Your task to perform on an android device: toggle notification dots Image 0: 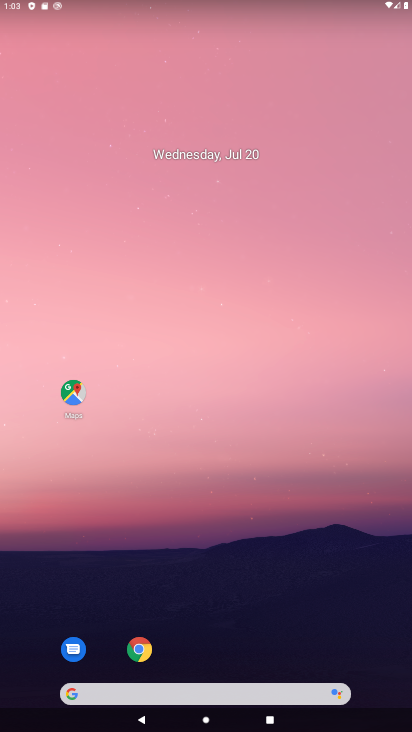
Step 0: drag from (234, 674) to (255, 74)
Your task to perform on an android device: toggle notification dots Image 1: 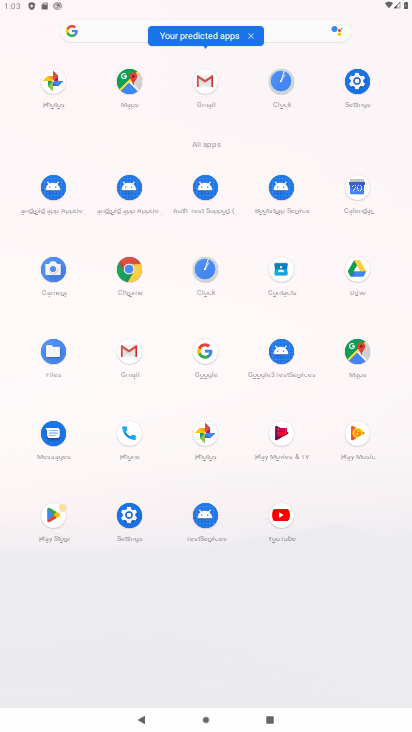
Step 1: click (135, 524)
Your task to perform on an android device: toggle notification dots Image 2: 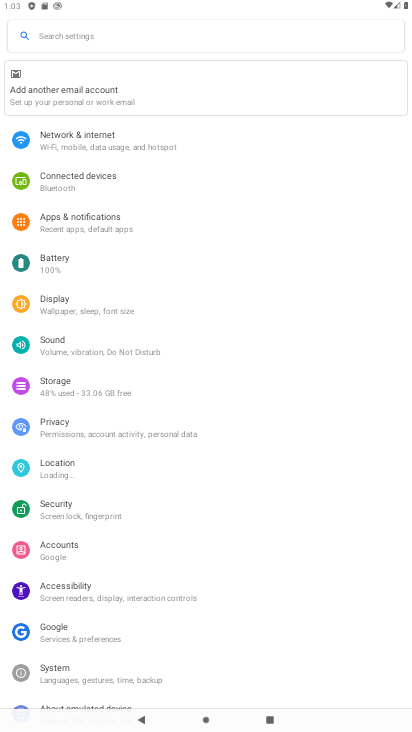
Step 2: click (87, 219)
Your task to perform on an android device: toggle notification dots Image 3: 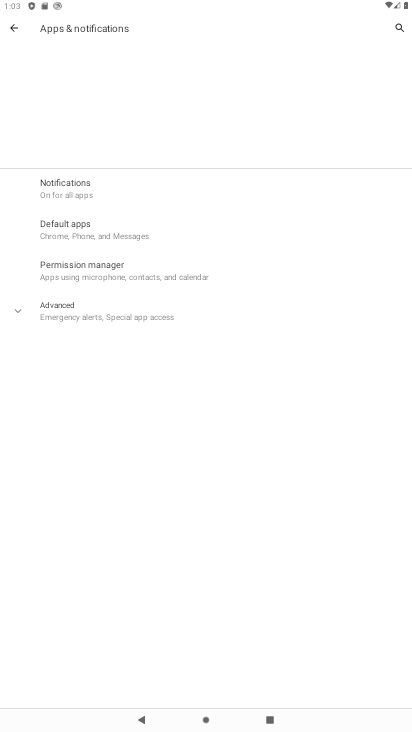
Step 3: click (83, 185)
Your task to perform on an android device: toggle notification dots Image 4: 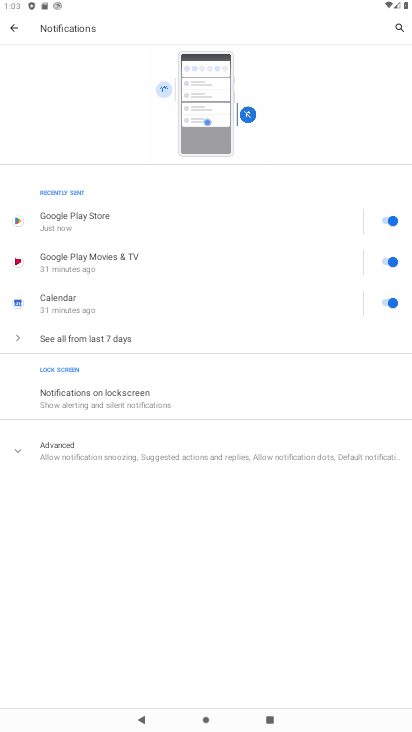
Step 4: click (79, 451)
Your task to perform on an android device: toggle notification dots Image 5: 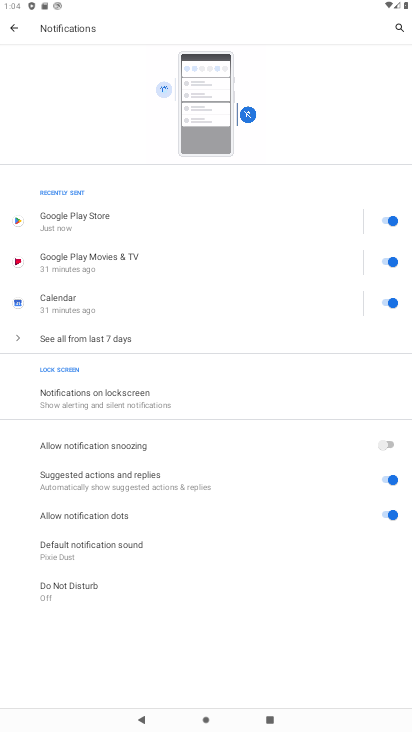
Step 5: click (128, 512)
Your task to perform on an android device: toggle notification dots Image 6: 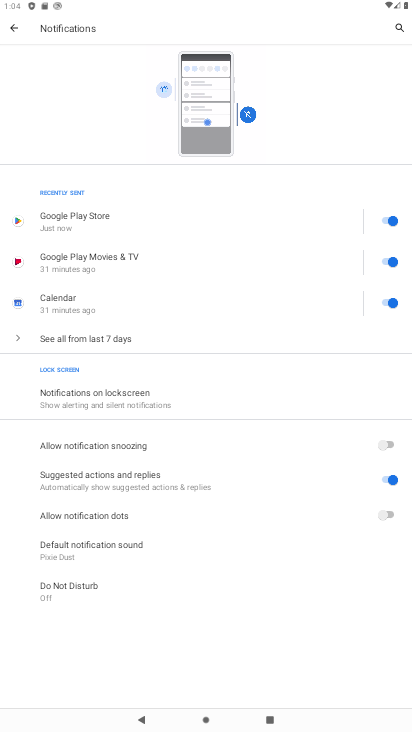
Step 6: task complete